Your task to perform on an android device: turn on airplane mode Image 0: 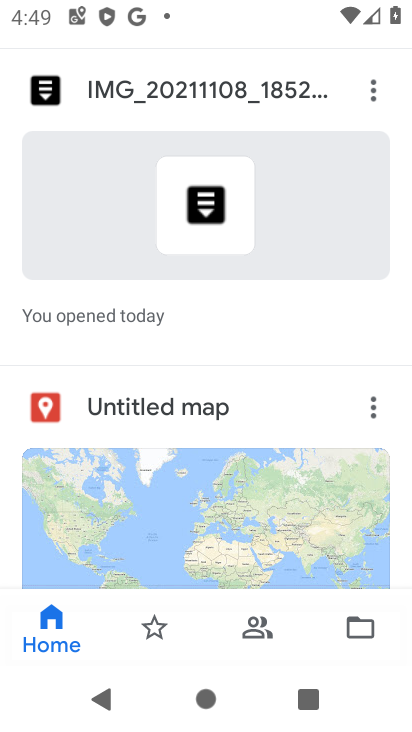
Step 0: press home button
Your task to perform on an android device: turn on airplane mode Image 1: 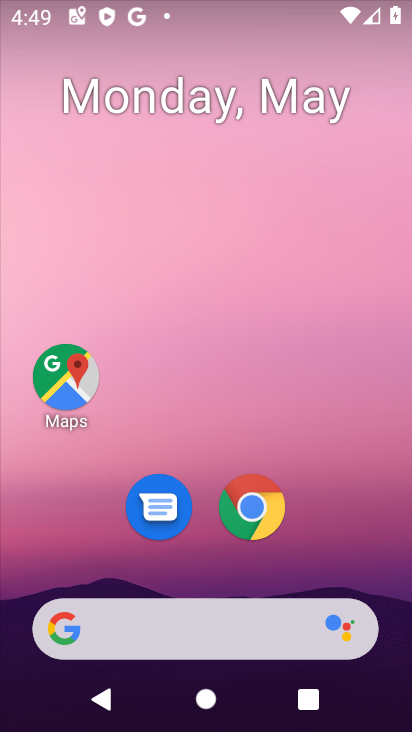
Step 1: drag from (361, 530) to (337, 36)
Your task to perform on an android device: turn on airplane mode Image 2: 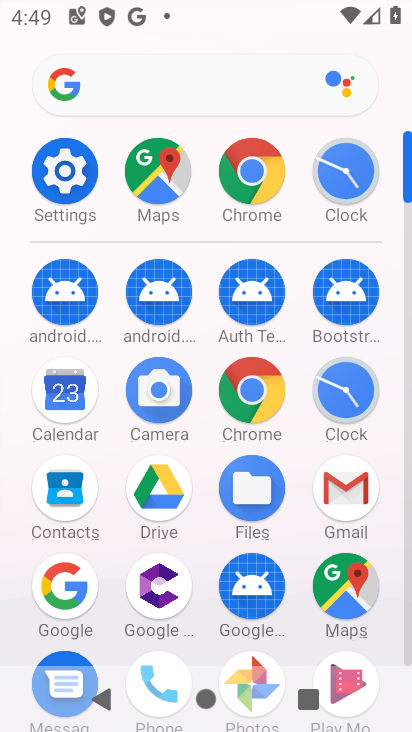
Step 2: click (60, 174)
Your task to perform on an android device: turn on airplane mode Image 3: 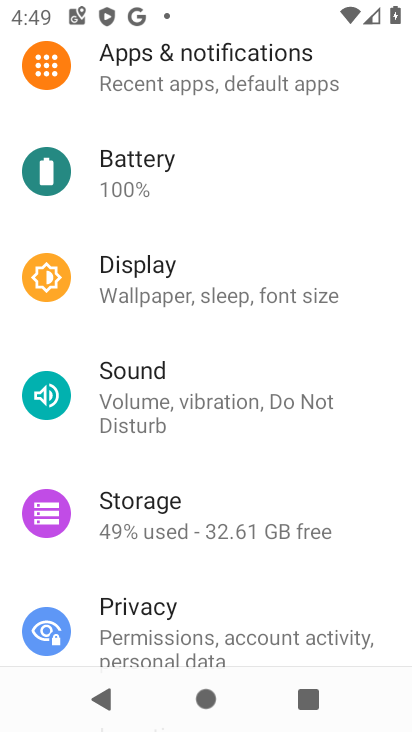
Step 3: drag from (265, 235) to (241, 670)
Your task to perform on an android device: turn on airplane mode Image 4: 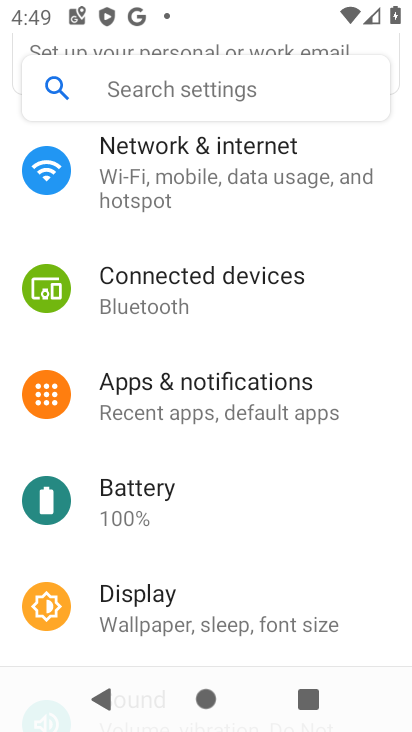
Step 4: drag from (251, 287) to (272, 680)
Your task to perform on an android device: turn on airplane mode Image 5: 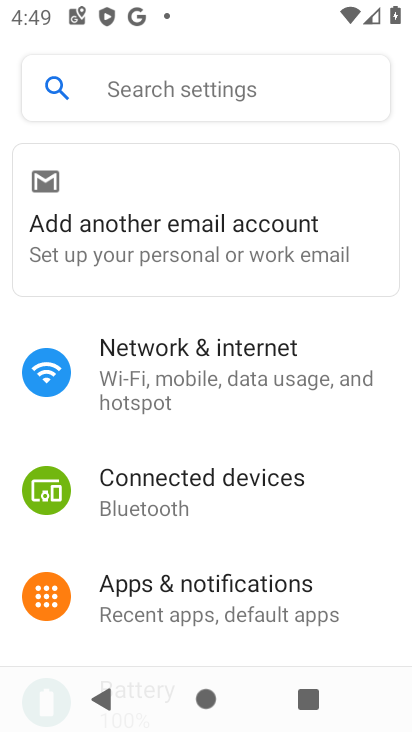
Step 5: click (216, 383)
Your task to perform on an android device: turn on airplane mode Image 6: 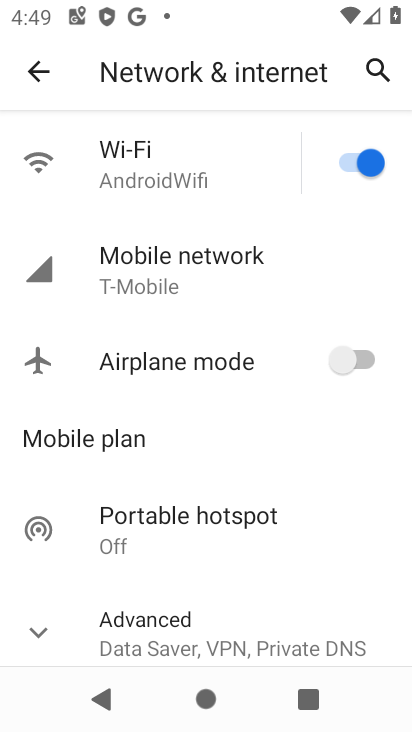
Step 6: click (350, 361)
Your task to perform on an android device: turn on airplane mode Image 7: 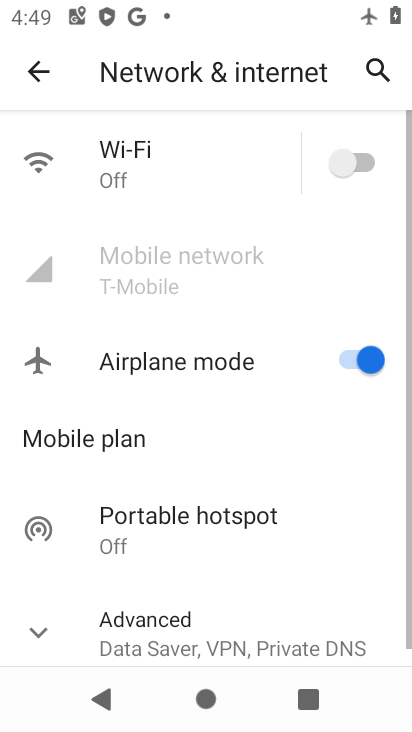
Step 7: task complete